Your task to perform on an android device: uninstall "Lyft - Rideshare, Bikes, Scooters & Transit" Image 0: 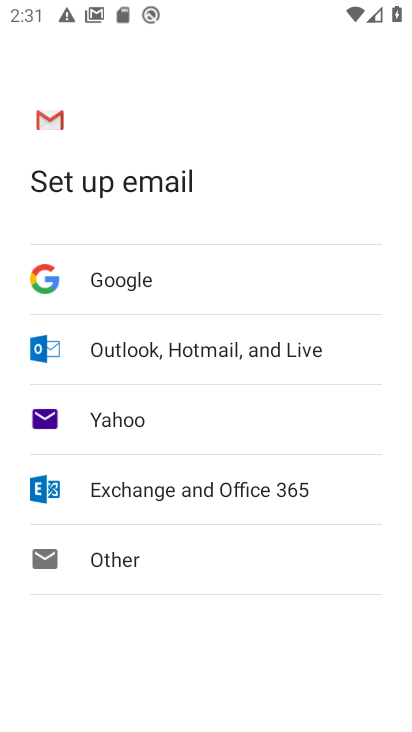
Step 0: press home button
Your task to perform on an android device: uninstall "Lyft - Rideshare, Bikes, Scooters & Transit" Image 1: 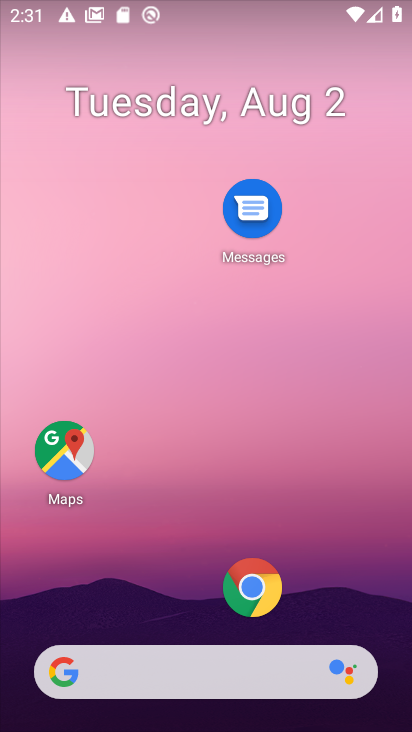
Step 1: drag from (162, 596) to (195, 227)
Your task to perform on an android device: uninstall "Lyft - Rideshare, Bikes, Scooters & Transit" Image 2: 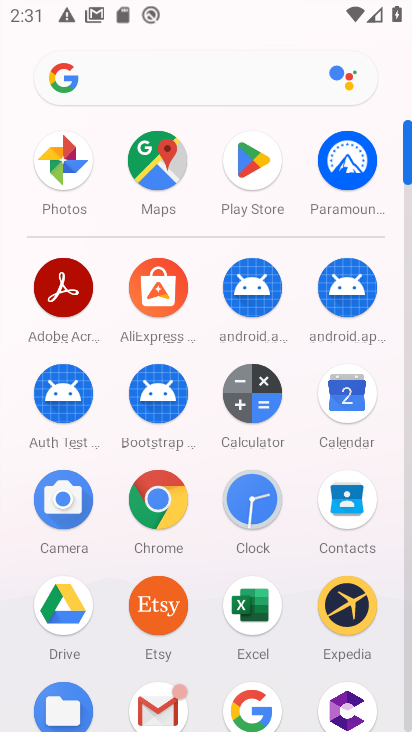
Step 2: click (259, 196)
Your task to perform on an android device: uninstall "Lyft - Rideshare, Bikes, Scooters & Transit" Image 3: 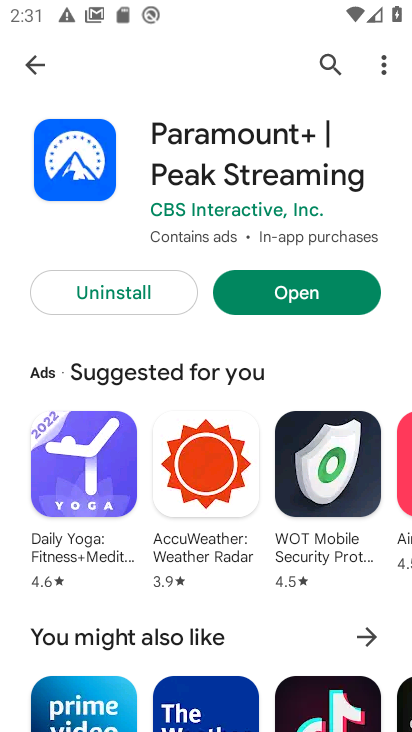
Step 3: click (330, 62)
Your task to perform on an android device: uninstall "Lyft - Rideshare, Bikes, Scooters & Transit" Image 4: 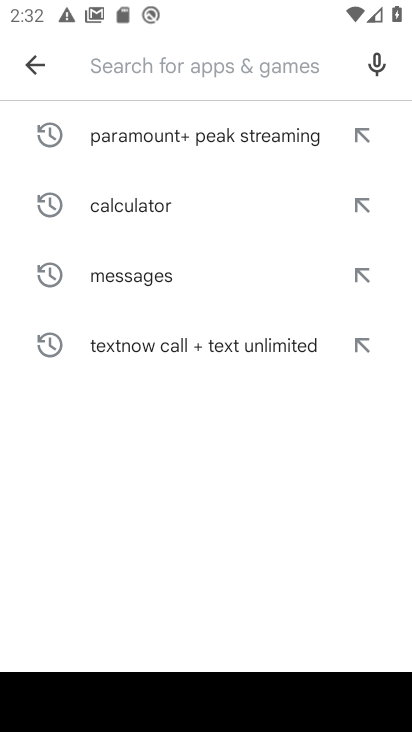
Step 4: type "Lyft - Rideshare, Bikes, Scooters & Transit"
Your task to perform on an android device: uninstall "Lyft - Rideshare, Bikes, Scooters & Transit" Image 5: 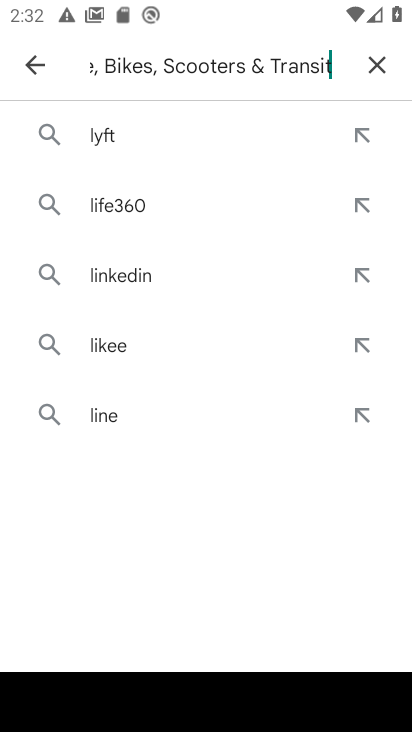
Step 5: type ""
Your task to perform on an android device: uninstall "Lyft - Rideshare, Bikes, Scooters & Transit" Image 6: 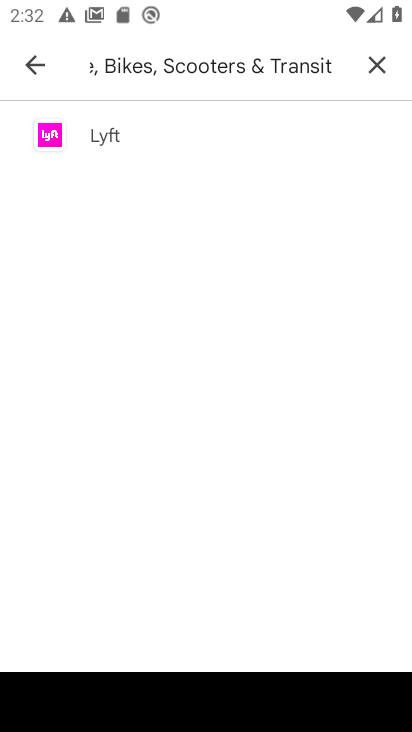
Step 6: click (168, 138)
Your task to perform on an android device: uninstall "Lyft - Rideshare, Bikes, Scooters & Transit" Image 7: 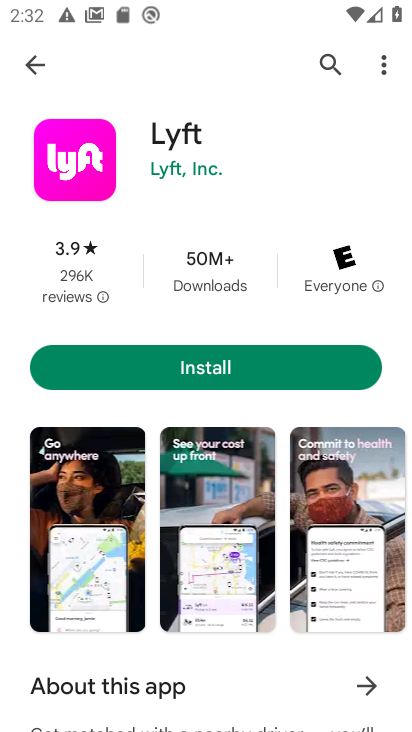
Step 7: task complete